Your task to perform on an android device: When is my next appointment? Image 0: 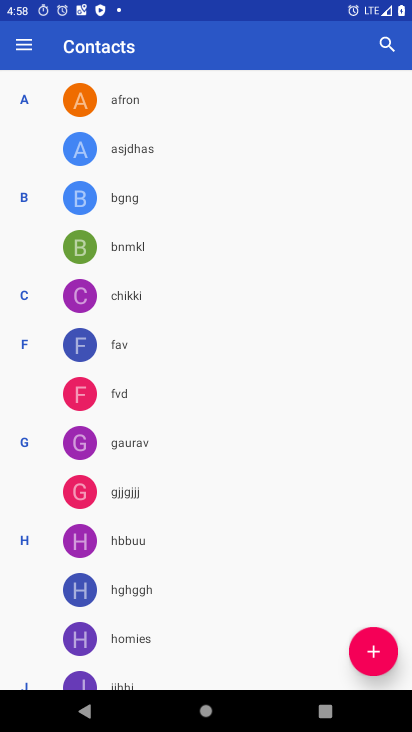
Step 0: press home button
Your task to perform on an android device: When is my next appointment? Image 1: 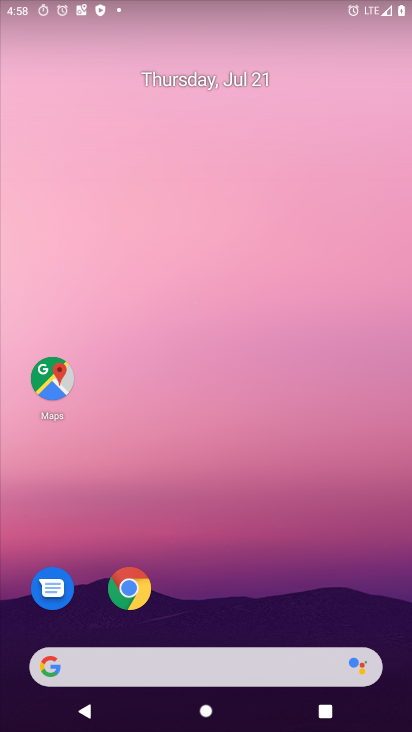
Step 1: drag from (270, 564) to (320, 90)
Your task to perform on an android device: When is my next appointment? Image 2: 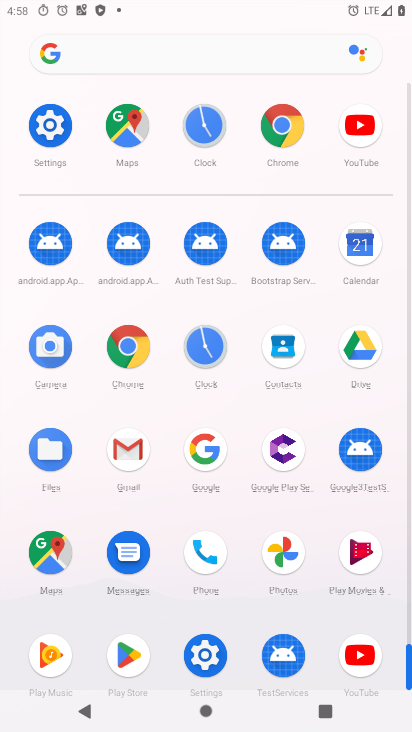
Step 2: click (351, 242)
Your task to perform on an android device: When is my next appointment? Image 3: 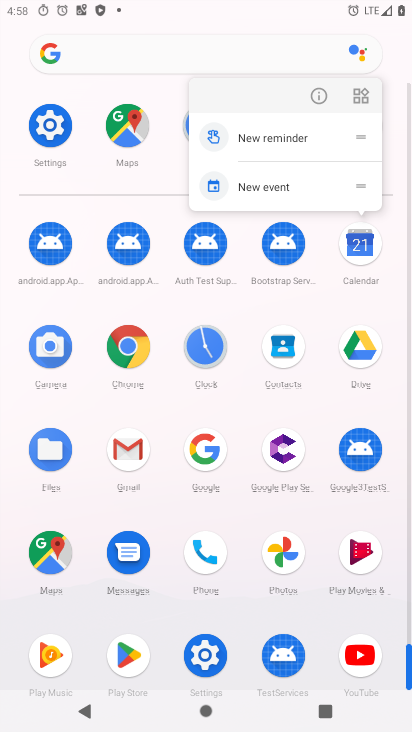
Step 3: click (360, 245)
Your task to perform on an android device: When is my next appointment? Image 4: 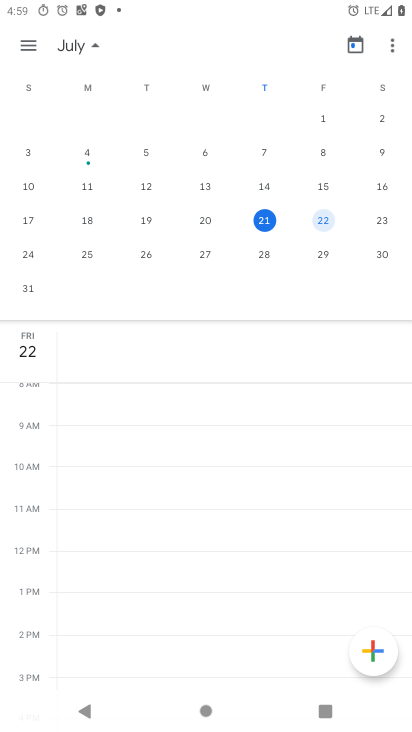
Step 4: click (272, 209)
Your task to perform on an android device: When is my next appointment? Image 5: 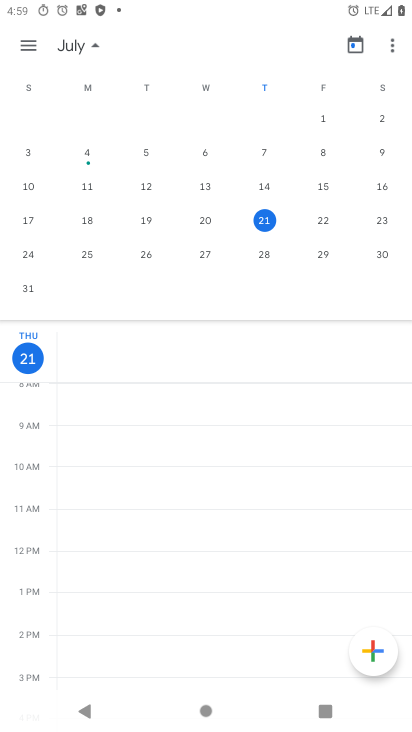
Step 5: click (24, 31)
Your task to perform on an android device: When is my next appointment? Image 6: 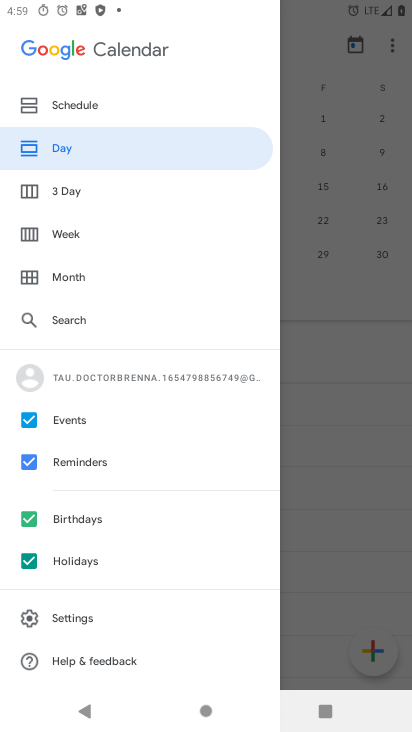
Step 6: click (58, 103)
Your task to perform on an android device: When is my next appointment? Image 7: 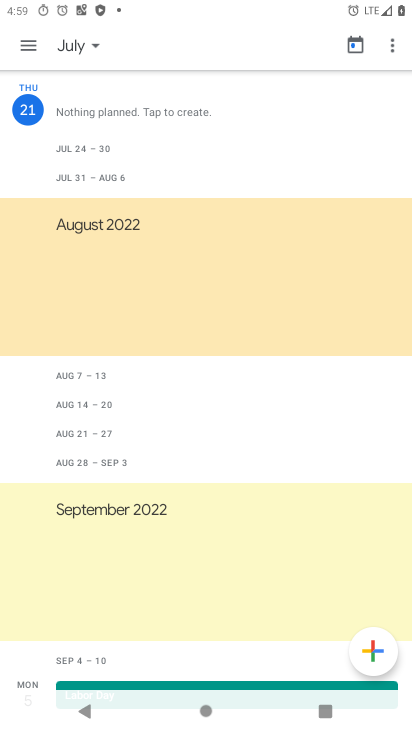
Step 7: task complete